Your task to perform on an android device: Open the Play Movies app and select the watchlist tab. Image 0: 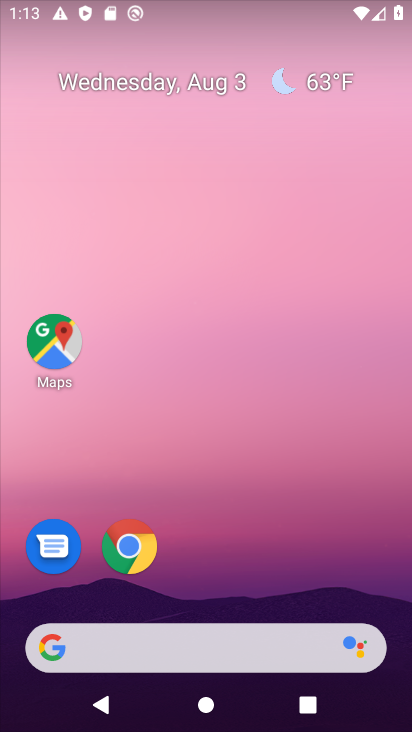
Step 0: drag from (274, 531) to (4, 573)
Your task to perform on an android device: Open the Play Movies app and select the watchlist tab. Image 1: 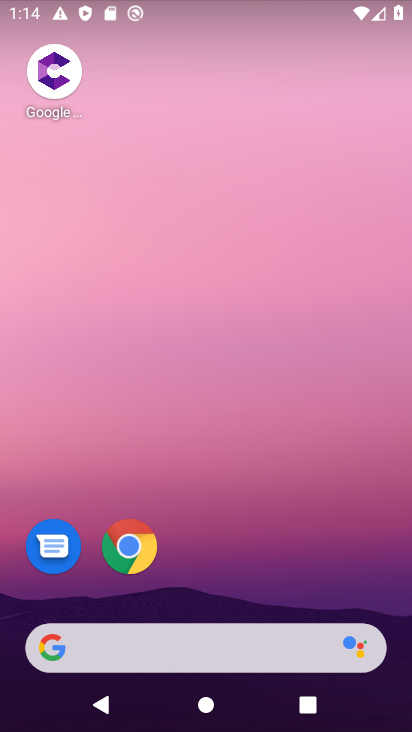
Step 1: drag from (302, 602) to (286, 11)
Your task to perform on an android device: Open the Play Movies app and select the watchlist tab. Image 2: 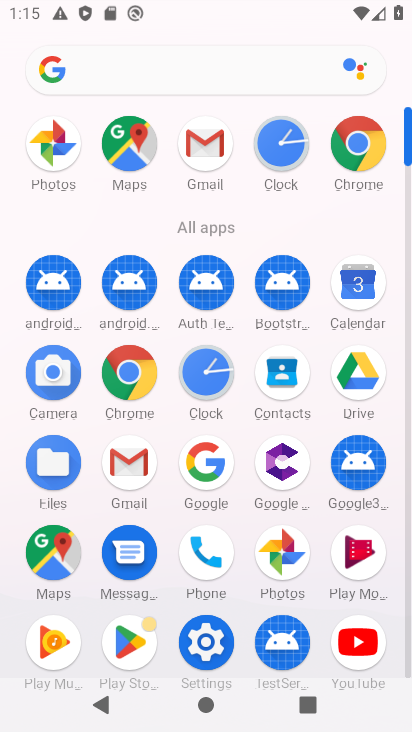
Step 2: click (358, 557)
Your task to perform on an android device: Open the Play Movies app and select the watchlist tab. Image 3: 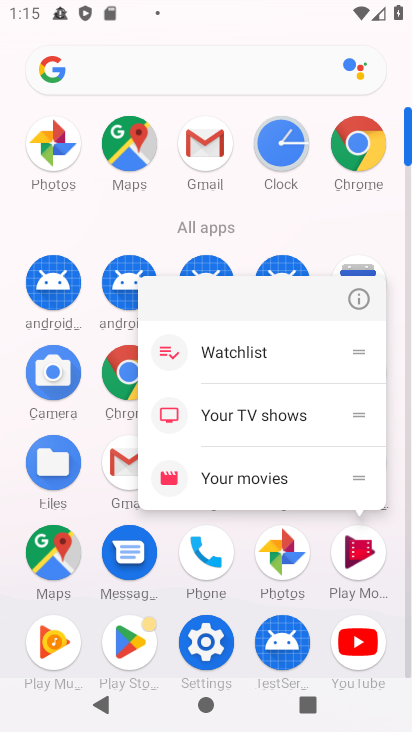
Step 3: click (358, 557)
Your task to perform on an android device: Open the Play Movies app and select the watchlist tab. Image 4: 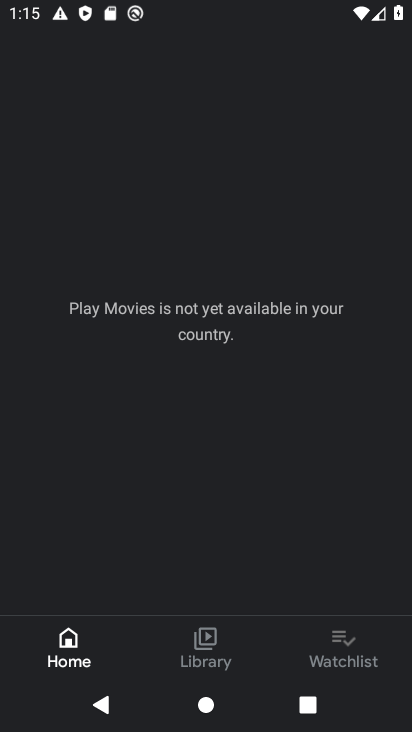
Step 4: click (354, 649)
Your task to perform on an android device: Open the Play Movies app and select the watchlist tab. Image 5: 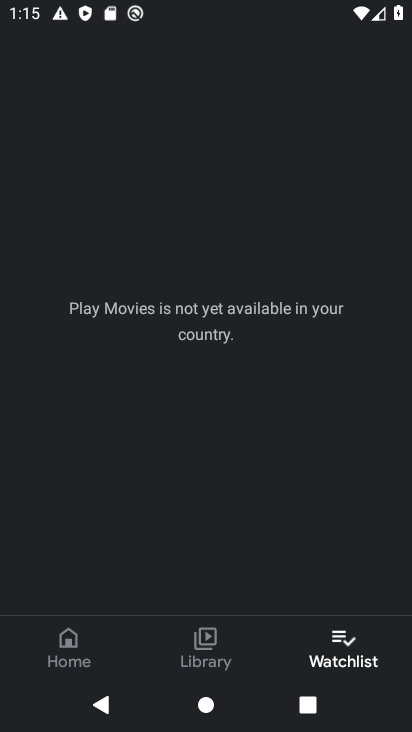
Step 5: task complete